Your task to perform on an android device: Go to eBay Image 0: 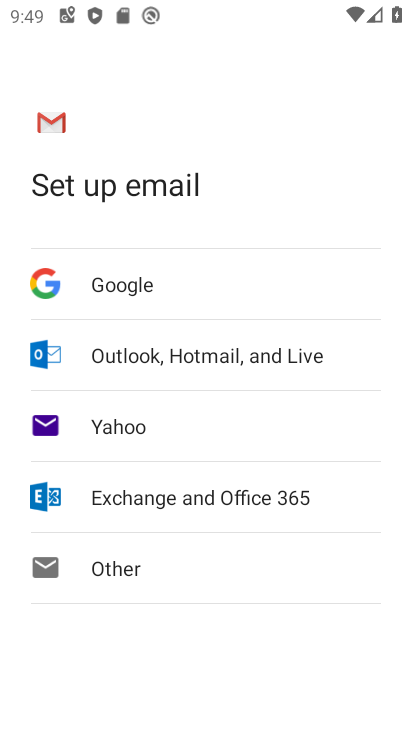
Step 0: press home button
Your task to perform on an android device: Go to eBay Image 1: 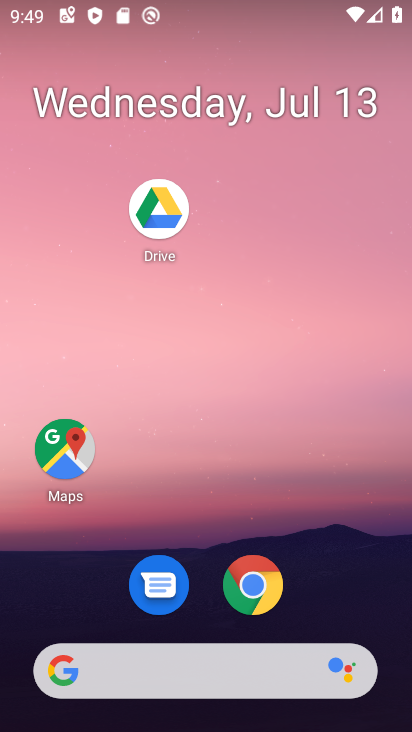
Step 1: click (250, 584)
Your task to perform on an android device: Go to eBay Image 2: 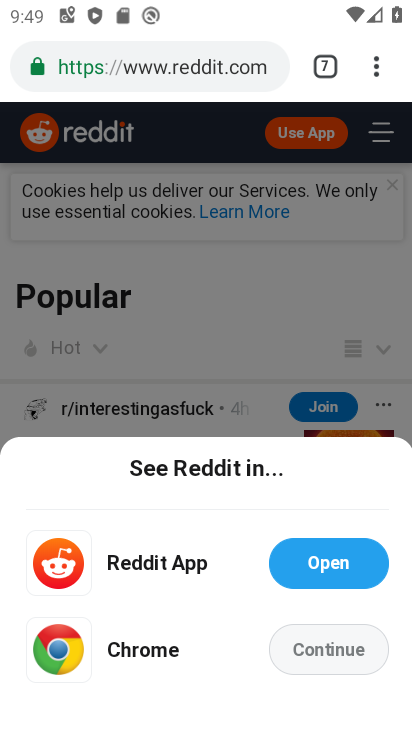
Step 2: drag from (377, 66) to (215, 137)
Your task to perform on an android device: Go to eBay Image 3: 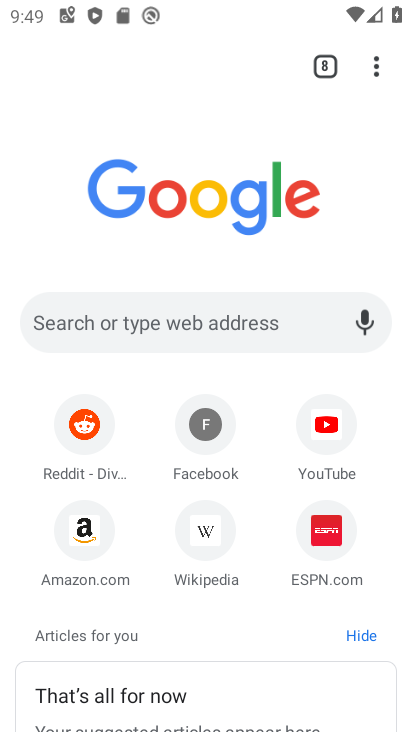
Step 3: click (189, 316)
Your task to perform on an android device: Go to eBay Image 4: 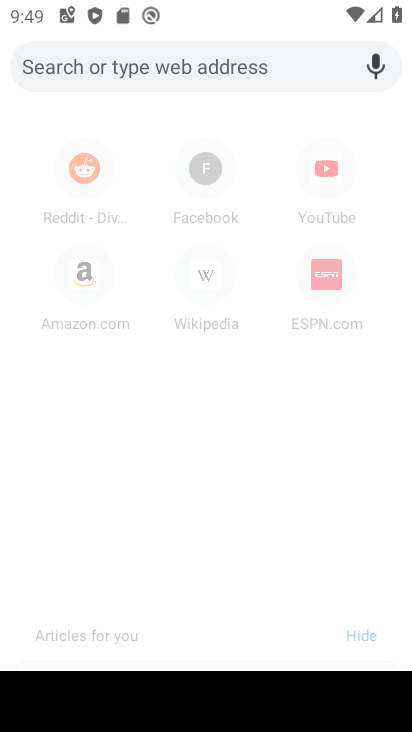
Step 4: type "ebay"
Your task to perform on an android device: Go to eBay Image 5: 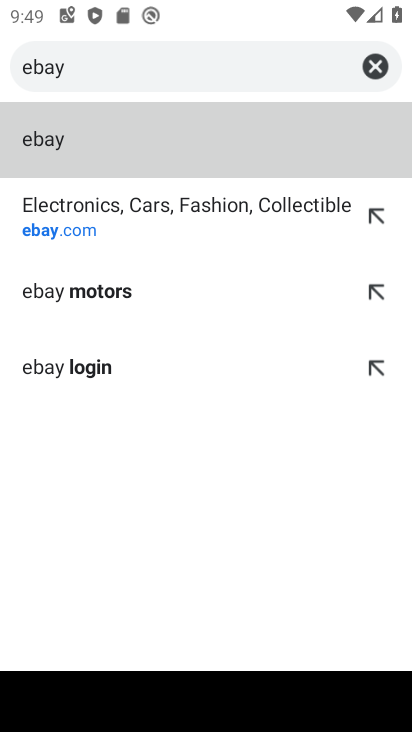
Step 5: click (190, 210)
Your task to perform on an android device: Go to eBay Image 6: 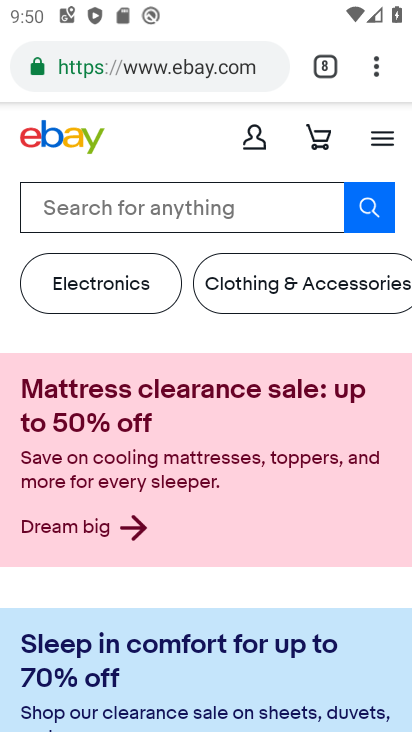
Step 6: drag from (241, 651) to (248, 217)
Your task to perform on an android device: Go to eBay Image 7: 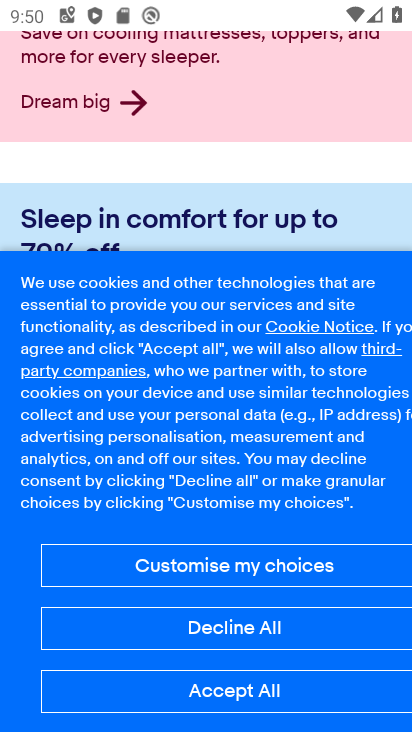
Step 7: click (248, 690)
Your task to perform on an android device: Go to eBay Image 8: 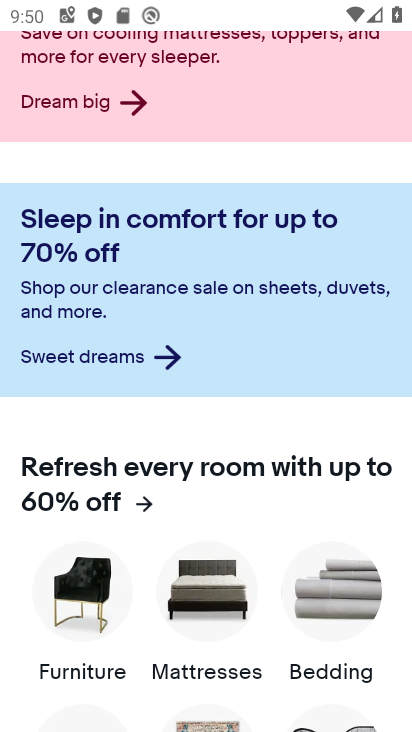
Step 8: task complete